Your task to perform on an android device: Open Youtube and go to the subscriptions tab Image 0: 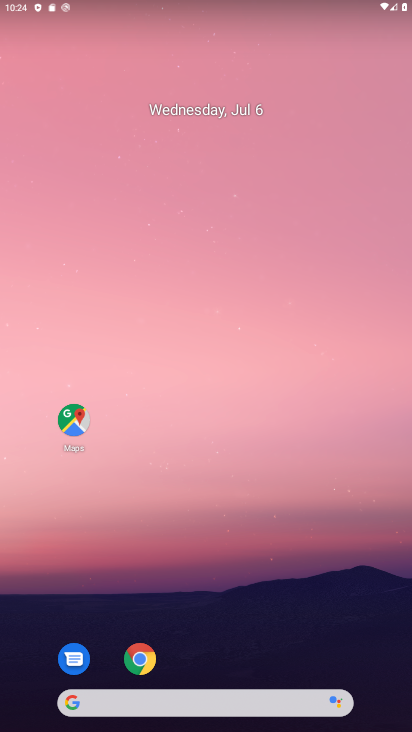
Step 0: drag from (227, 636) to (260, 108)
Your task to perform on an android device: Open Youtube and go to the subscriptions tab Image 1: 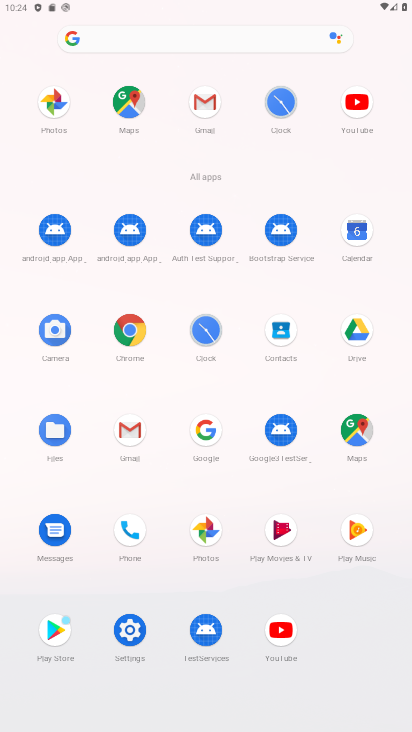
Step 1: click (353, 111)
Your task to perform on an android device: Open Youtube and go to the subscriptions tab Image 2: 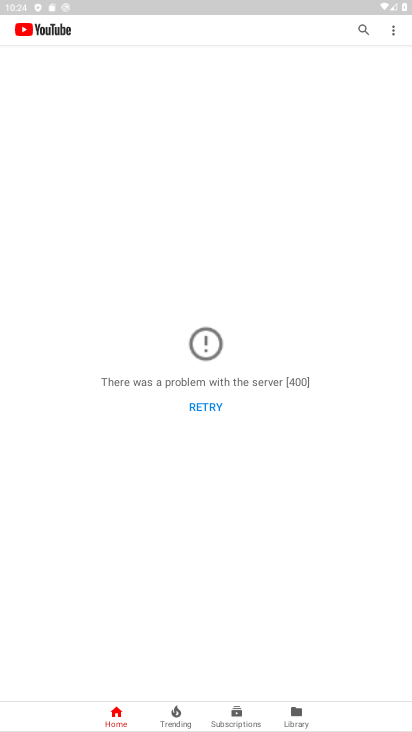
Step 2: click (237, 722)
Your task to perform on an android device: Open Youtube and go to the subscriptions tab Image 3: 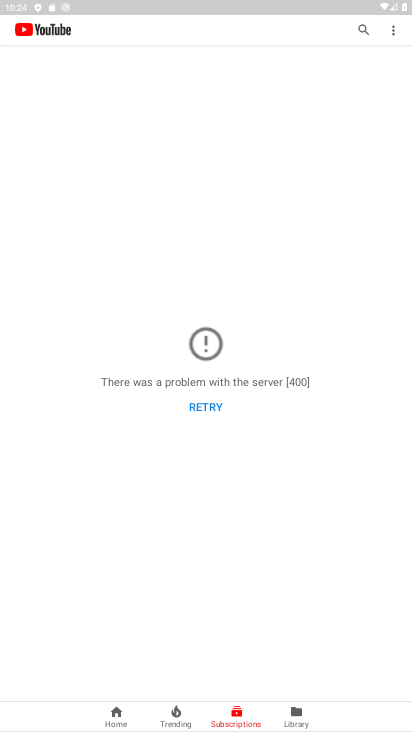
Step 3: task complete